Your task to perform on an android device: Open sound settings Image 0: 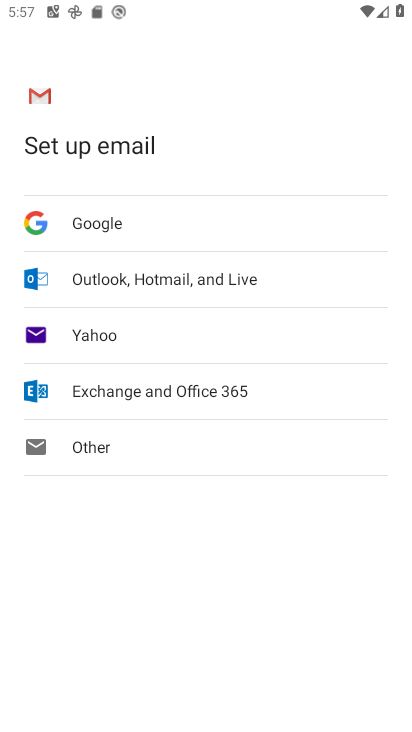
Step 0: press home button
Your task to perform on an android device: Open sound settings Image 1: 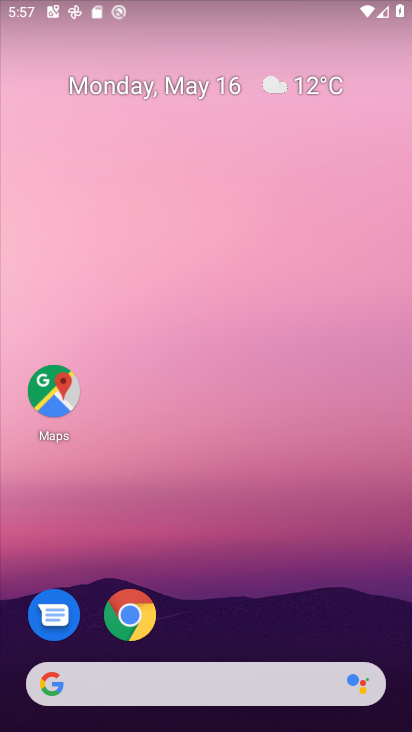
Step 1: drag from (228, 606) to (254, 136)
Your task to perform on an android device: Open sound settings Image 2: 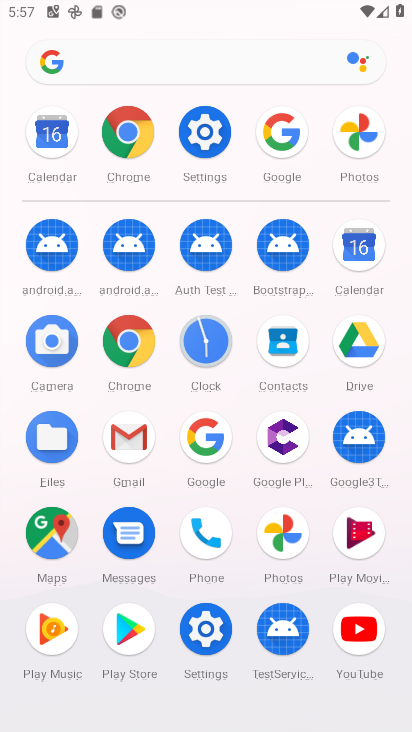
Step 2: click (187, 130)
Your task to perform on an android device: Open sound settings Image 3: 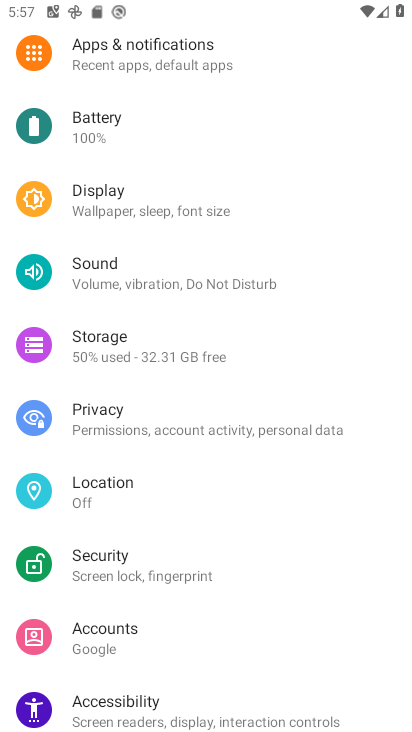
Step 3: click (104, 271)
Your task to perform on an android device: Open sound settings Image 4: 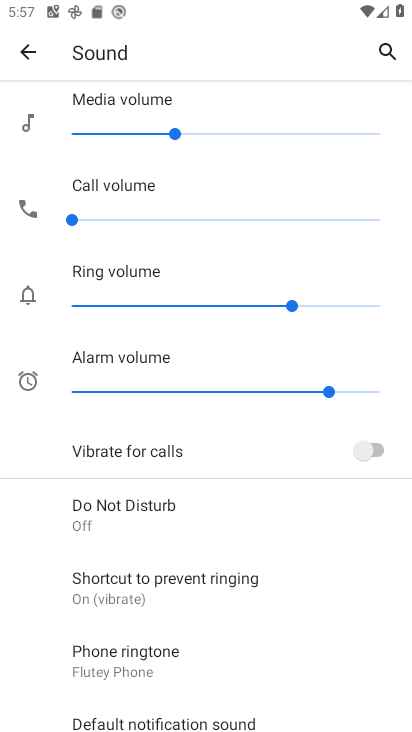
Step 4: task complete